Your task to perform on an android device: turn on javascript in the chrome app Image 0: 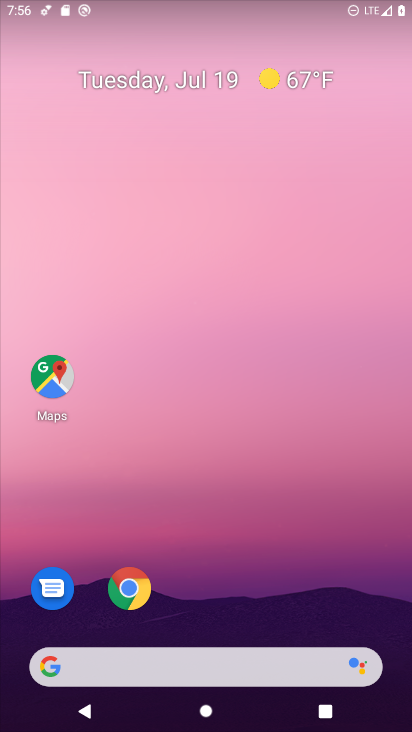
Step 0: drag from (316, 592) to (363, 113)
Your task to perform on an android device: turn on javascript in the chrome app Image 1: 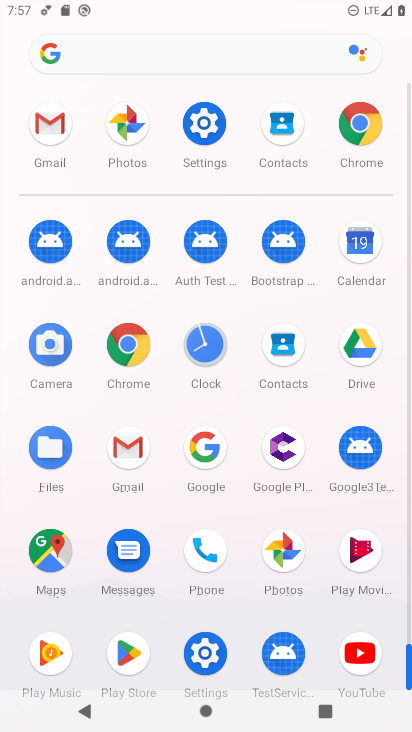
Step 1: click (358, 130)
Your task to perform on an android device: turn on javascript in the chrome app Image 2: 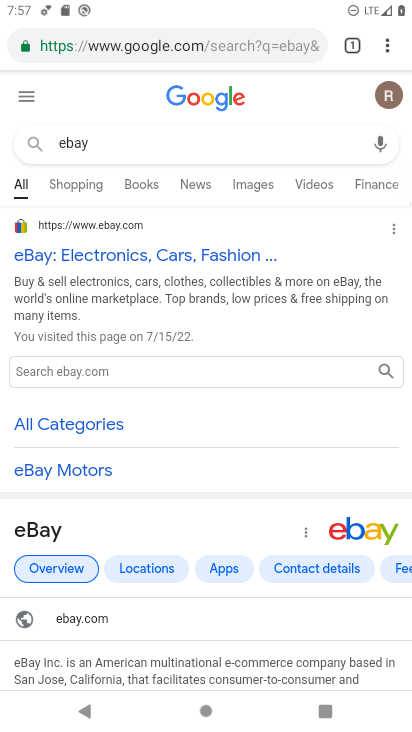
Step 2: click (389, 46)
Your task to perform on an android device: turn on javascript in the chrome app Image 3: 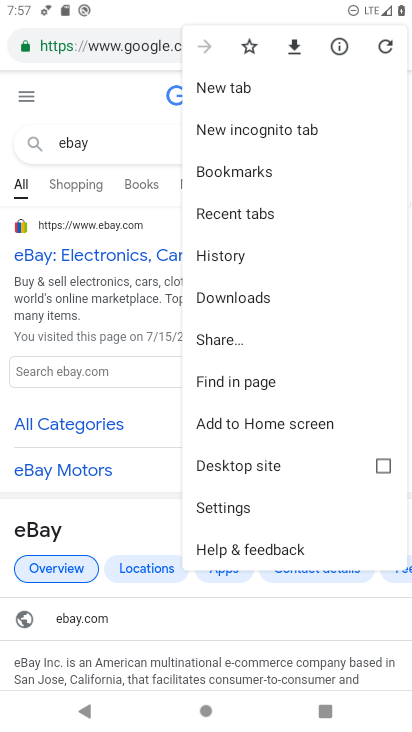
Step 3: click (242, 509)
Your task to perform on an android device: turn on javascript in the chrome app Image 4: 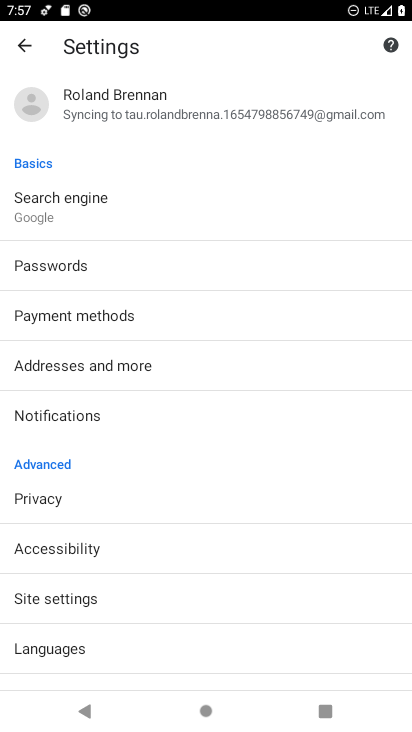
Step 4: click (180, 595)
Your task to perform on an android device: turn on javascript in the chrome app Image 5: 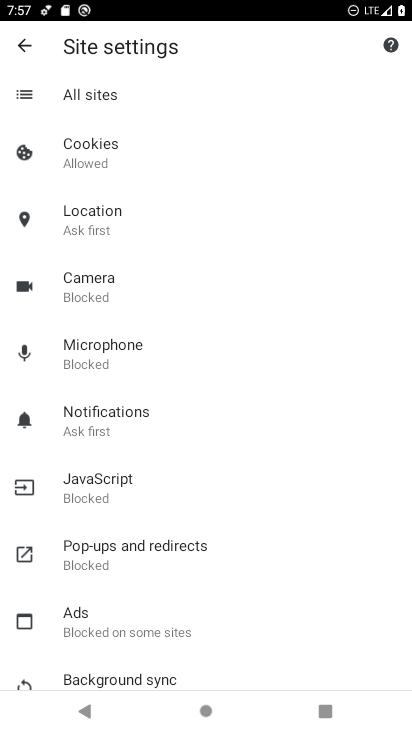
Step 5: click (144, 489)
Your task to perform on an android device: turn on javascript in the chrome app Image 6: 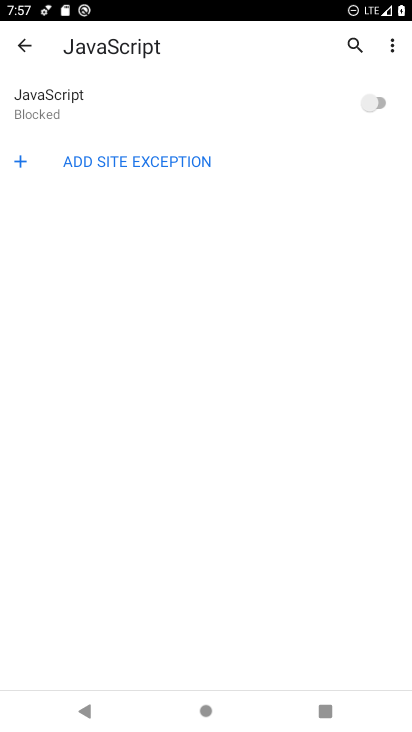
Step 6: click (376, 100)
Your task to perform on an android device: turn on javascript in the chrome app Image 7: 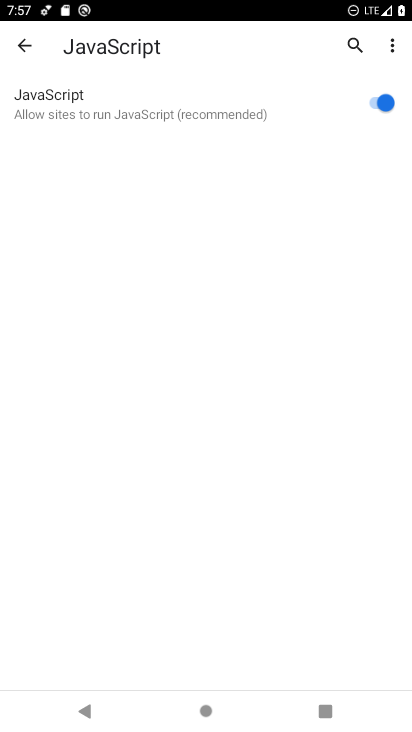
Step 7: task complete